Your task to perform on an android device: Open the calendar app, open the side menu, and click the "Day" option Image 0: 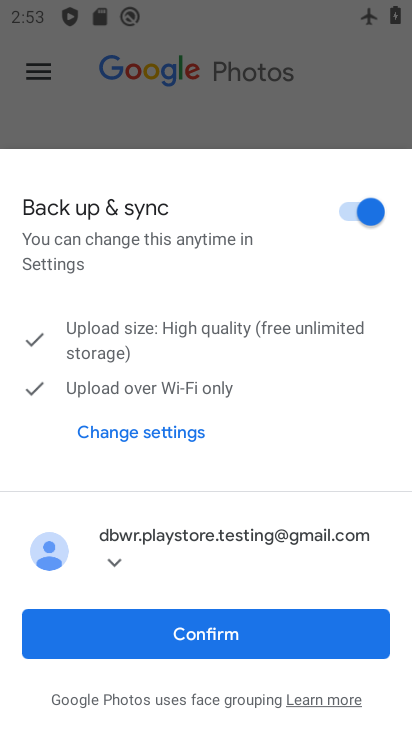
Step 0: press home button
Your task to perform on an android device: Open the calendar app, open the side menu, and click the "Day" option Image 1: 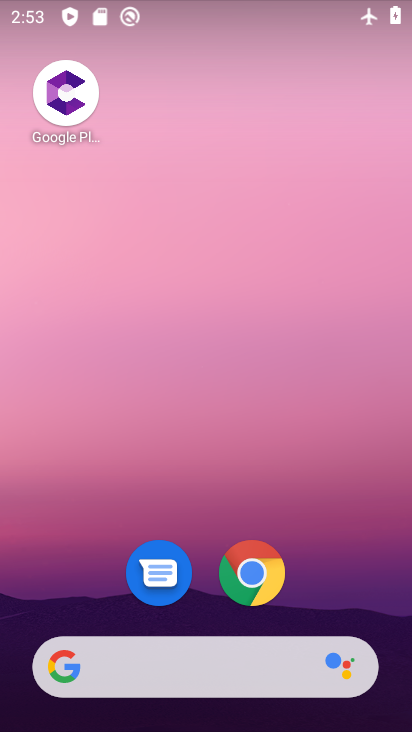
Step 1: drag from (200, 634) to (142, 135)
Your task to perform on an android device: Open the calendar app, open the side menu, and click the "Day" option Image 2: 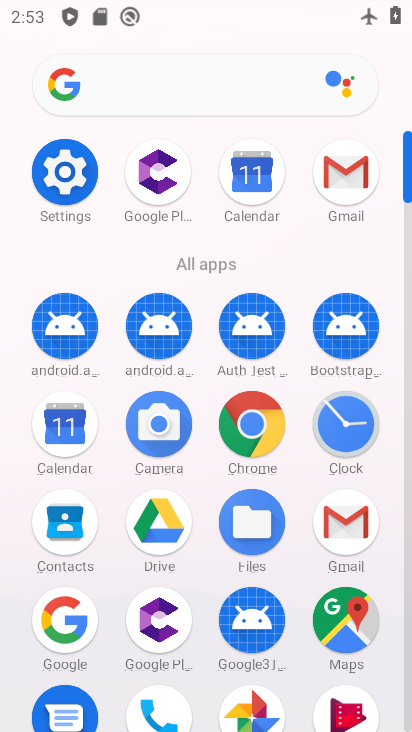
Step 2: click (50, 425)
Your task to perform on an android device: Open the calendar app, open the side menu, and click the "Day" option Image 3: 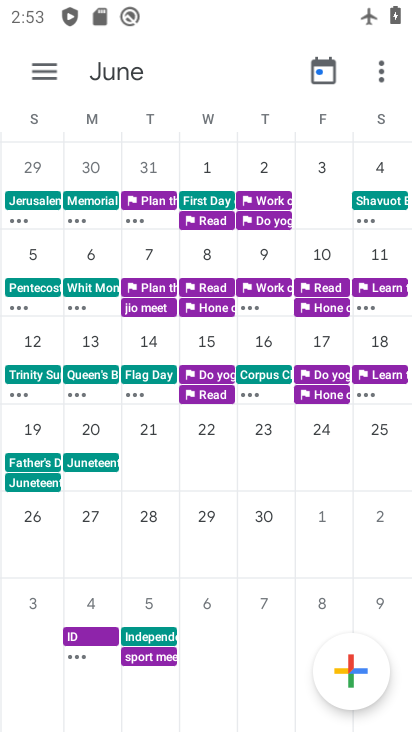
Step 3: click (50, 74)
Your task to perform on an android device: Open the calendar app, open the side menu, and click the "Day" option Image 4: 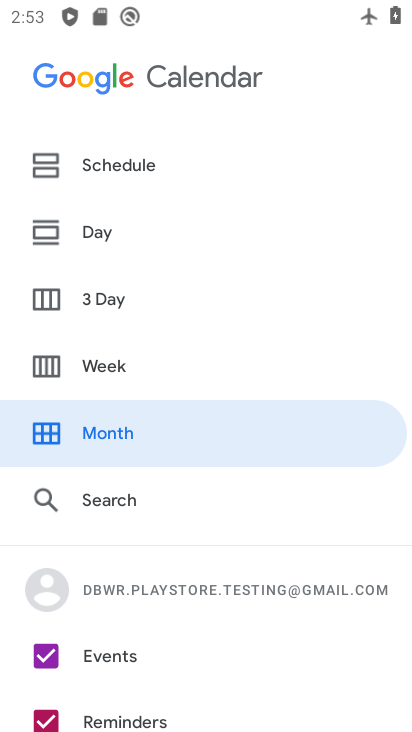
Step 4: click (75, 241)
Your task to perform on an android device: Open the calendar app, open the side menu, and click the "Day" option Image 5: 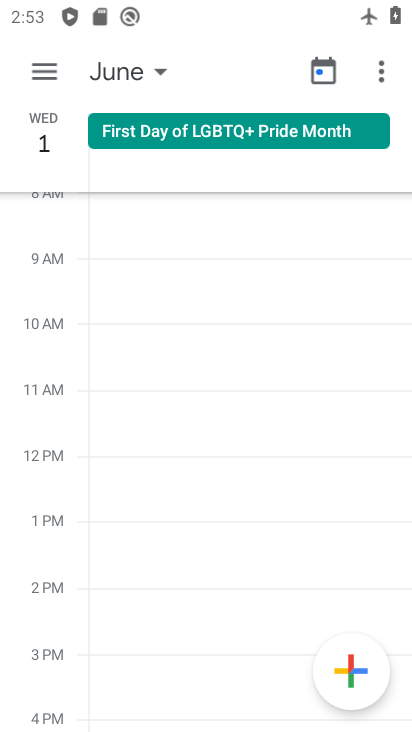
Step 5: task complete